Your task to perform on an android device: see sites visited before in the chrome app Image 0: 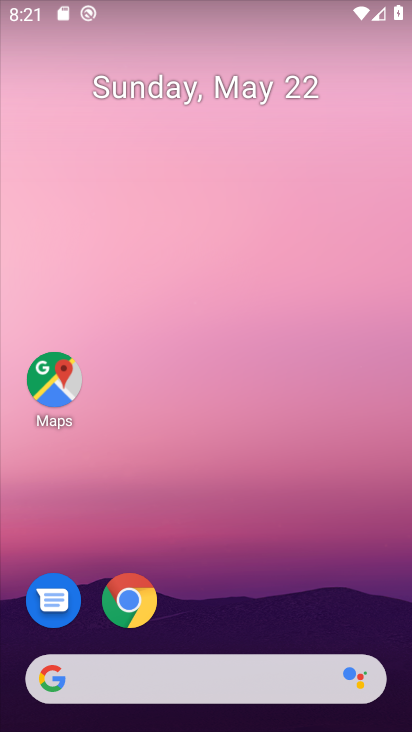
Step 0: click (125, 617)
Your task to perform on an android device: see sites visited before in the chrome app Image 1: 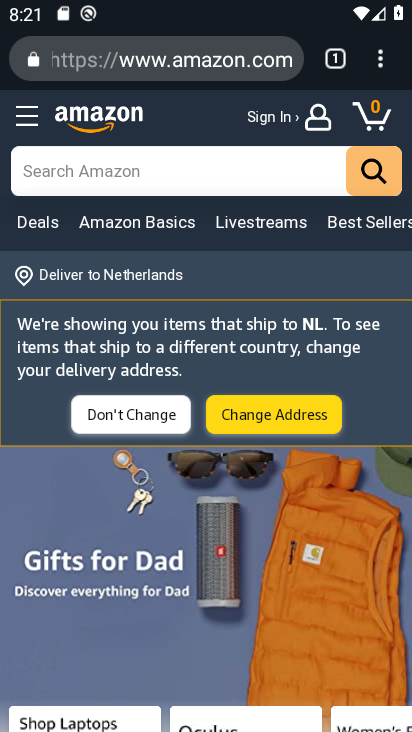
Step 1: click (335, 48)
Your task to perform on an android device: see sites visited before in the chrome app Image 2: 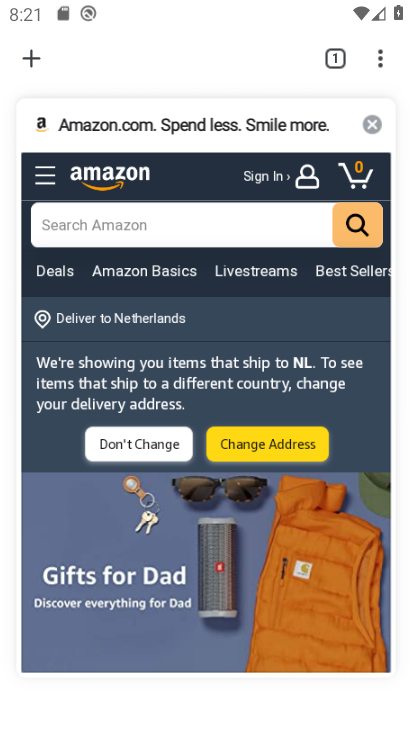
Step 2: task complete